Your task to perform on an android device: Go to calendar. Show me events next week Image 0: 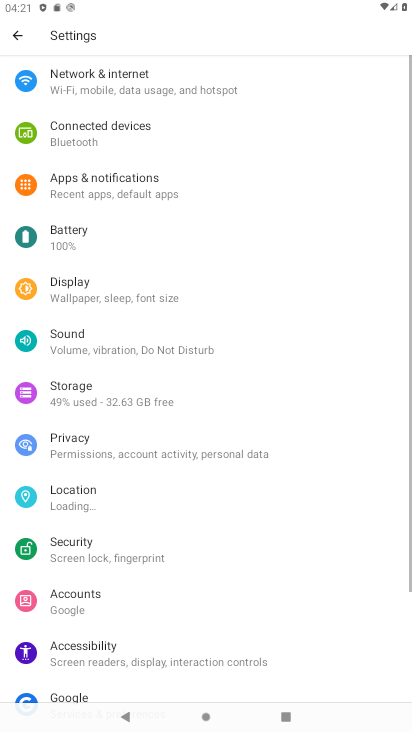
Step 0: press home button
Your task to perform on an android device: Go to calendar. Show me events next week Image 1: 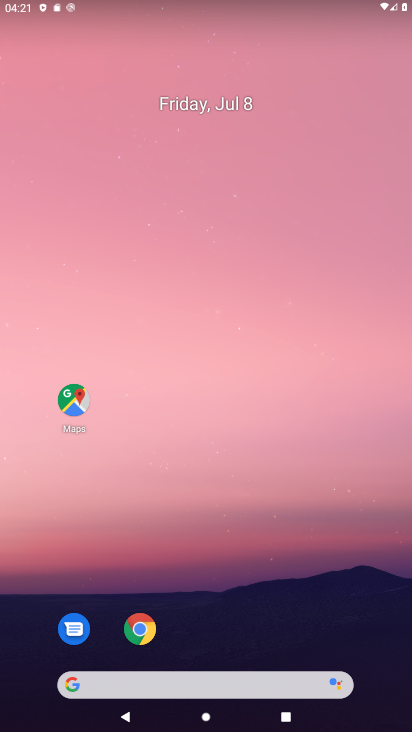
Step 1: drag from (228, 721) to (226, 146)
Your task to perform on an android device: Go to calendar. Show me events next week Image 2: 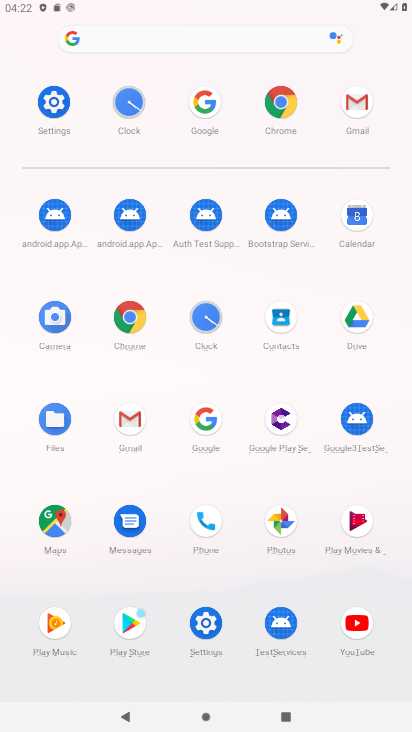
Step 2: click (357, 214)
Your task to perform on an android device: Go to calendar. Show me events next week Image 3: 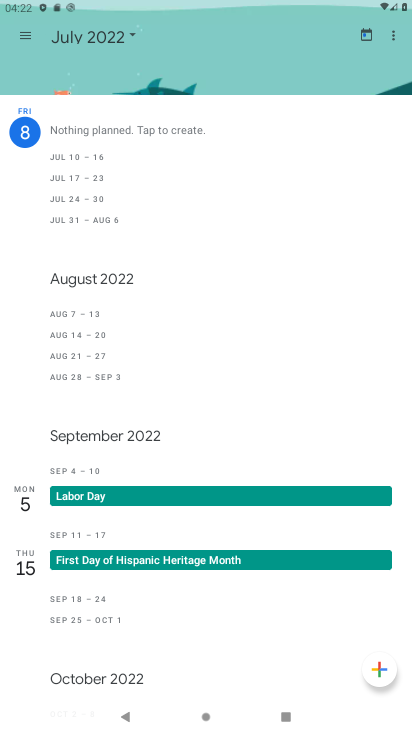
Step 3: click (133, 28)
Your task to perform on an android device: Go to calendar. Show me events next week Image 4: 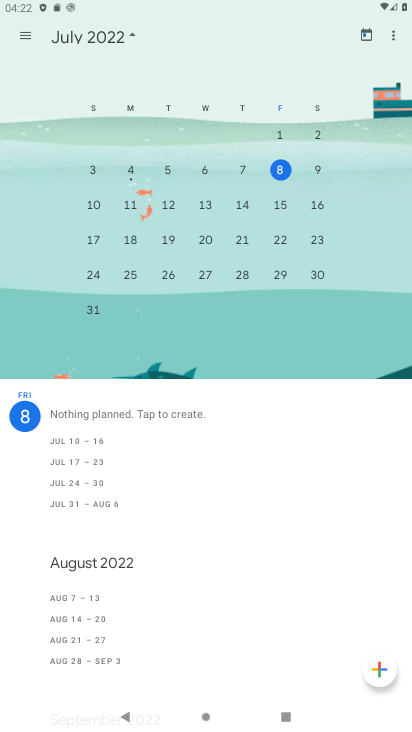
Step 4: click (131, 206)
Your task to perform on an android device: Go to calendar. Show me events next week Image 5: 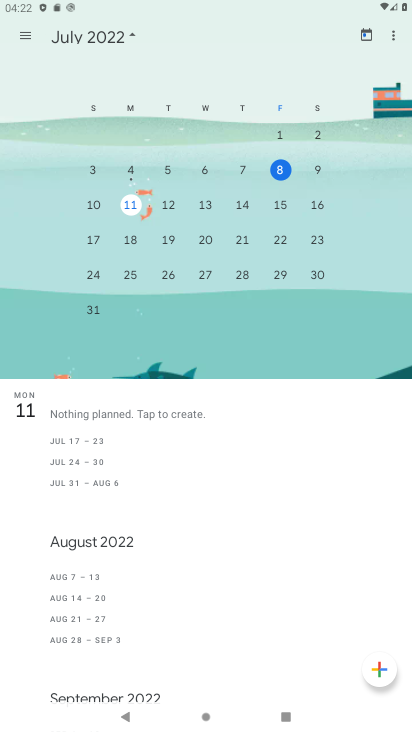
Step 5: click (129, 201)
Your task to perform on an android device: Go to calendar. Show me events next week Image 6: 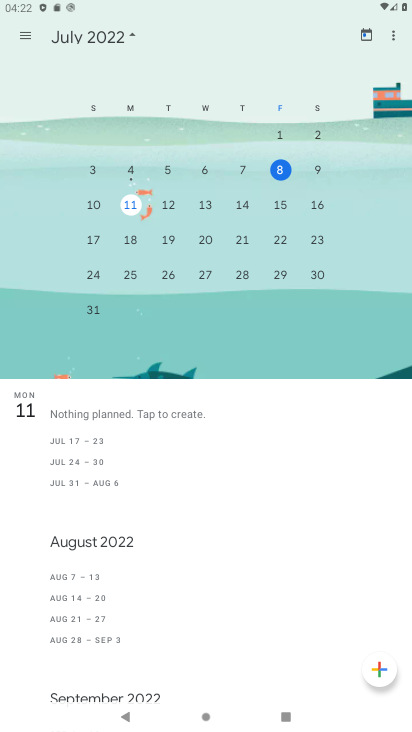
Step 6: click (129, 33)
Your task to perform on an android device: Go to calendar. Show me events next week Image 7: 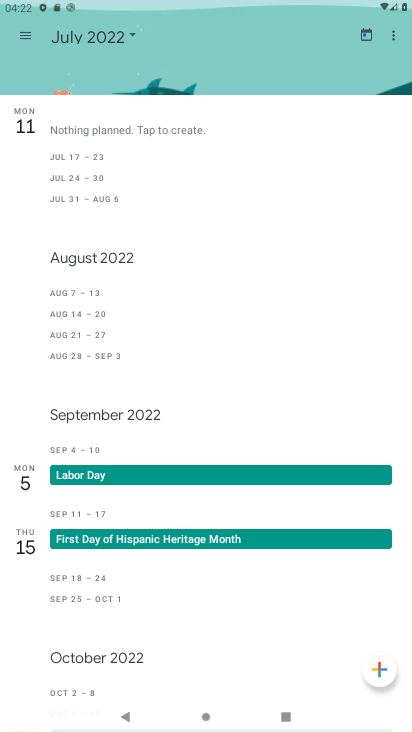
Step 7: task complete